Your task to perform on an android device: Show me popular videos on Youtube Image 0: 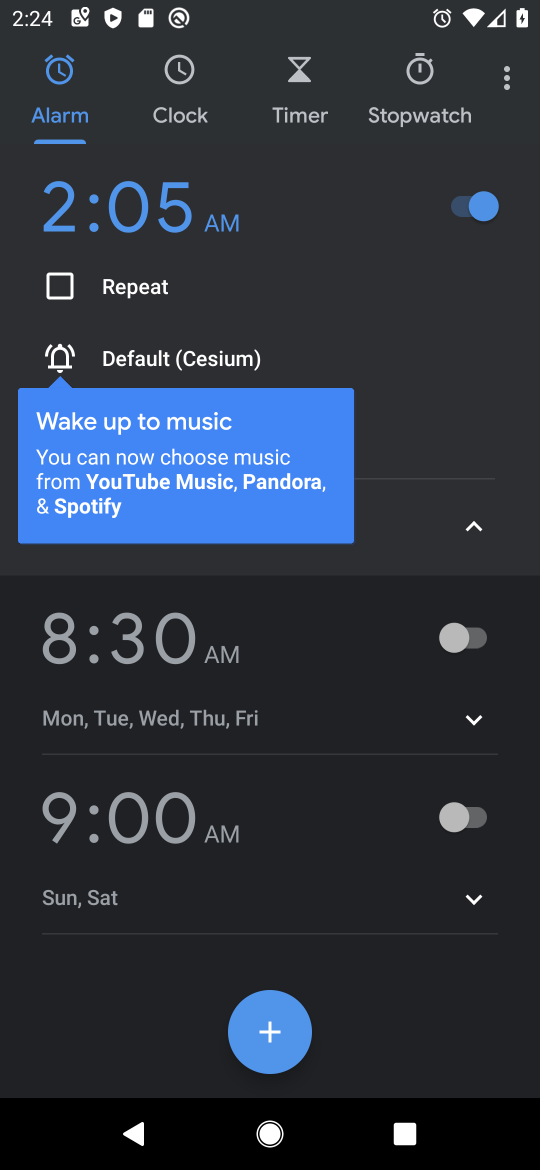
Step 0: press home button
Your task to perform on an android device: Show me popular videos on Youtube Image 1: 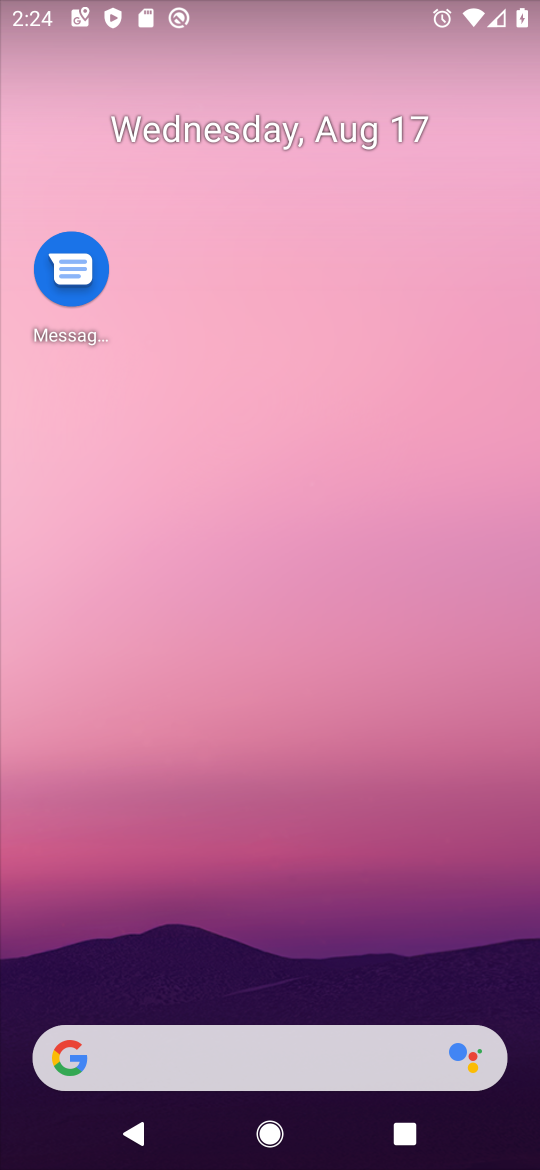
Step 1: drag from (287, 979) to (181, 177)
Your task to perform on an android device: Show me popular videos on Youtube Image 2: 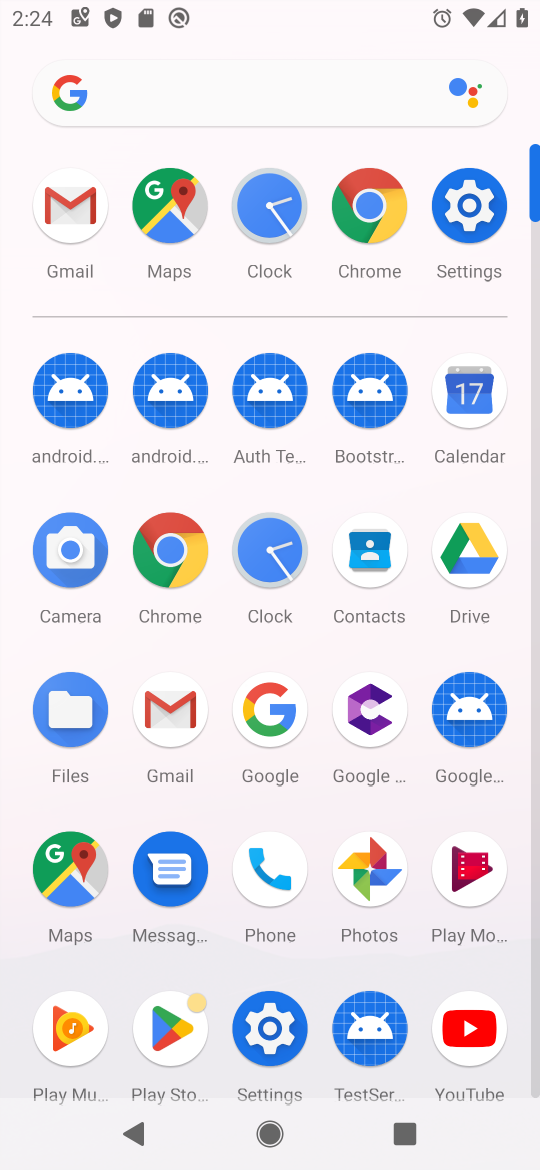
Step 2: click (471, 1041)
Your task to perform on an android device: Show me popular videos on Youtube Image 3: 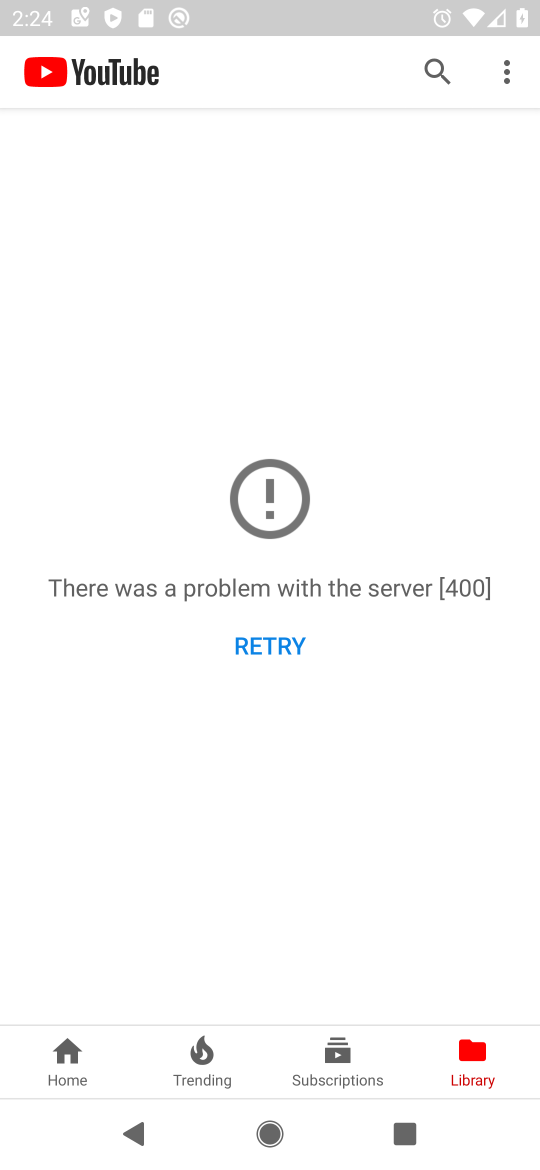
Step 3: click (52, 1083)
Your task to perform on an android device: Show me popular videos on Youtube Image 4: 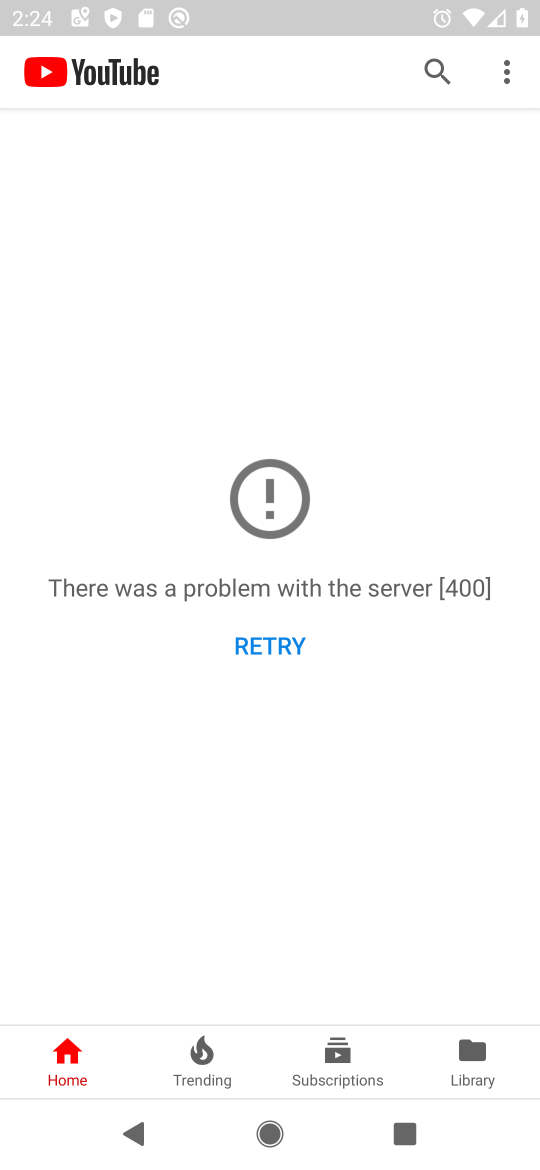
Step 4: click (256, 634)
Your task to perform on an android device: Show me popular videos on Youtube Image 5: 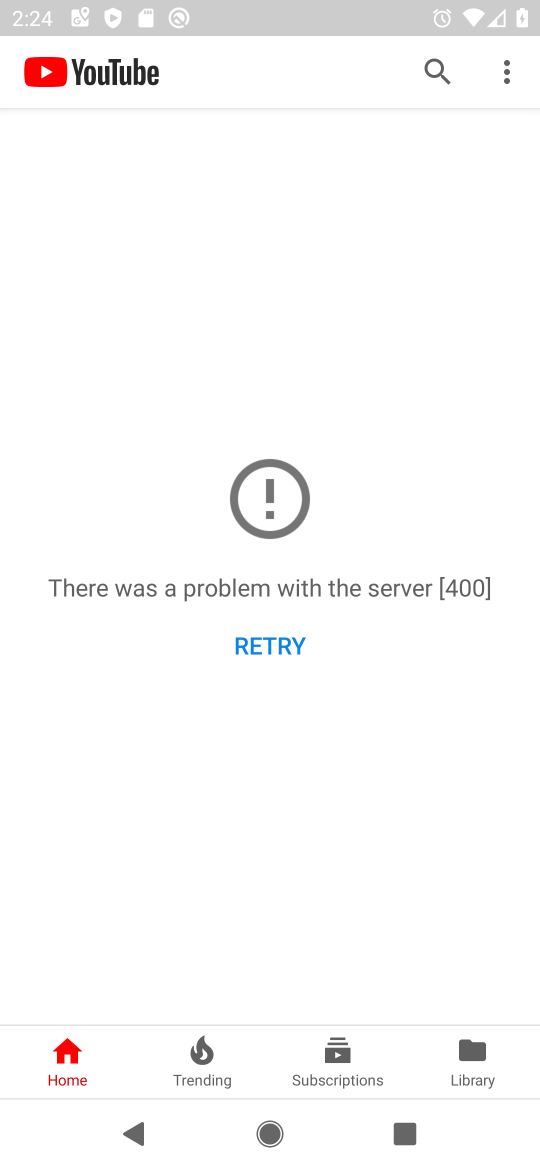
Step 5: task complete